Your task to perform on an android device: Open notification settings Image 0: 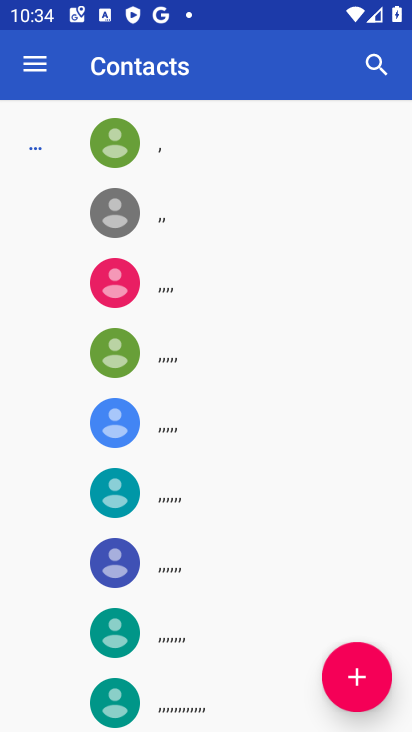
Step 0: press home button
Your task to perform on an android device: Open notification settings Image 1: 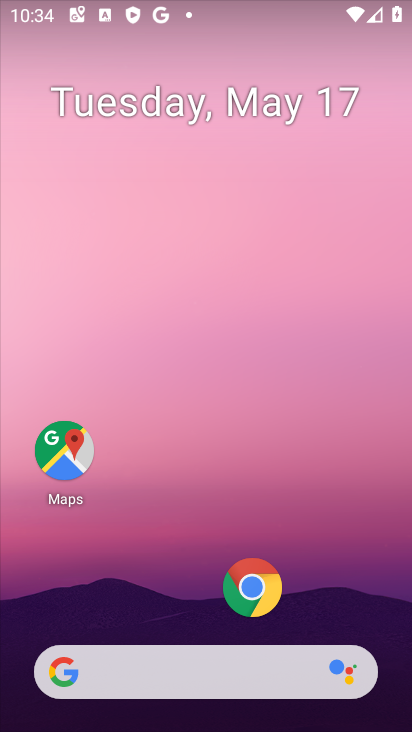
Step 1: drag from (192, 584) to (256, 131)
Your task to perform on an android device: Open notification settings Image 2: 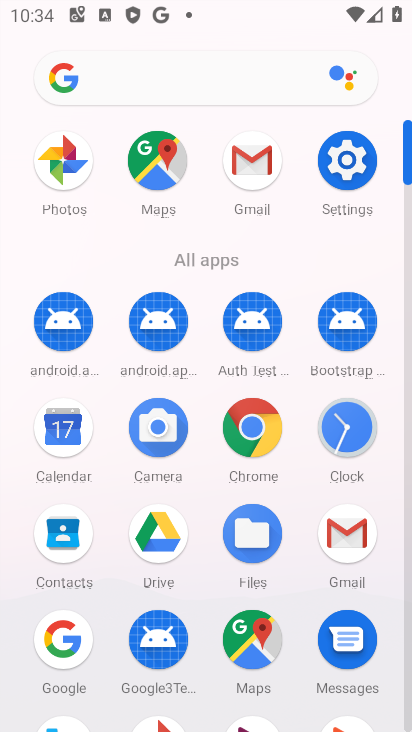
Step 2: click (349, 165)
Your task to perform on an android device: Open notification settings Image 3: 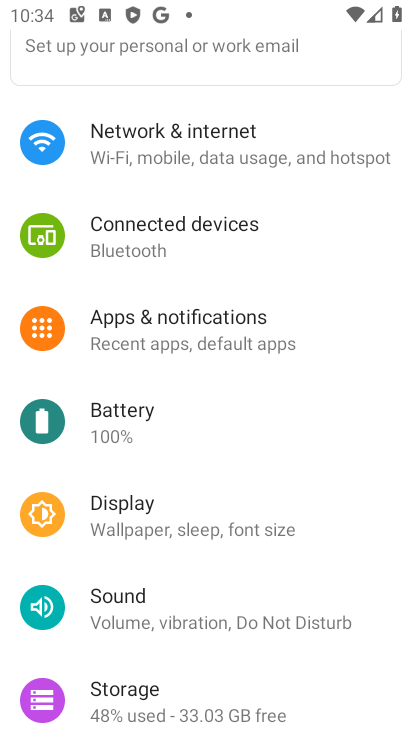
Step 3: click (285, 341)
Your task to perform on an android device: Open notification settings Image 4: 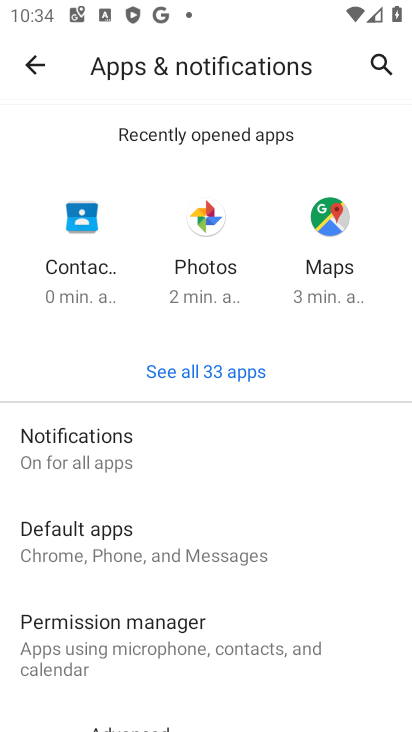
Step 4: click (165, 458)
Your task to perform on an android device: Open notification settings Image 5: 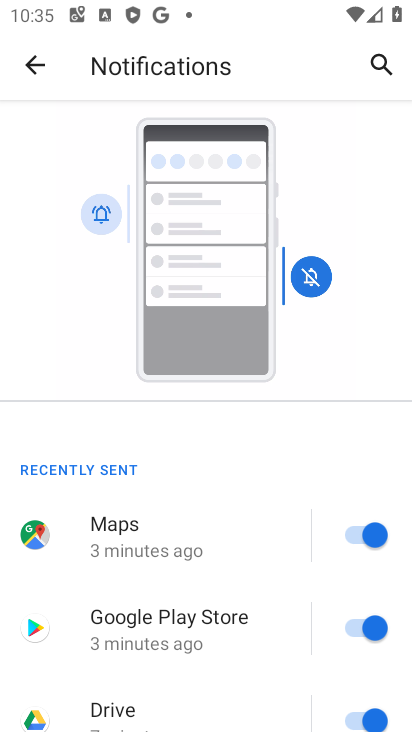
Step 5: task complete